Your task to perform on an android device: turn on sleep mode Image 0: 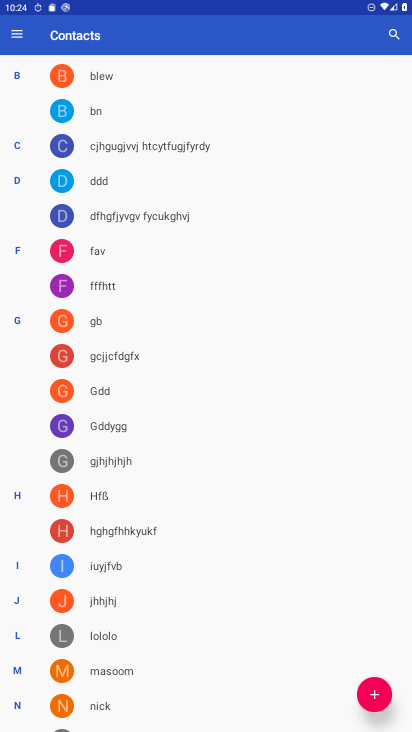
Step 0: press home button
Your task to perform on an android device: turn on sleep mode Image 1: 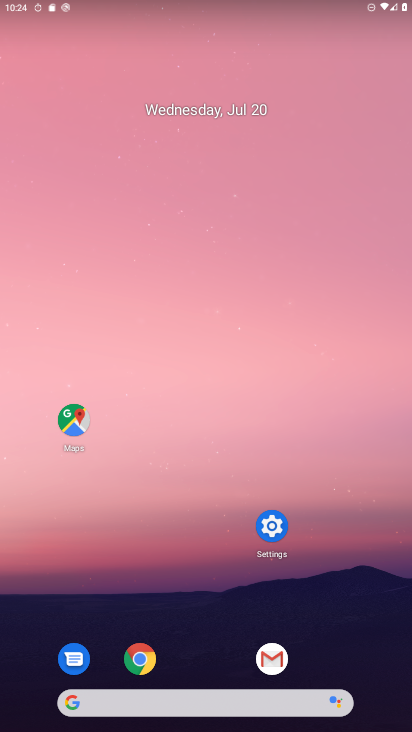
Step 1: click (273, 545)
Your task to perform on an android device: turn on sleep mode Image 2: 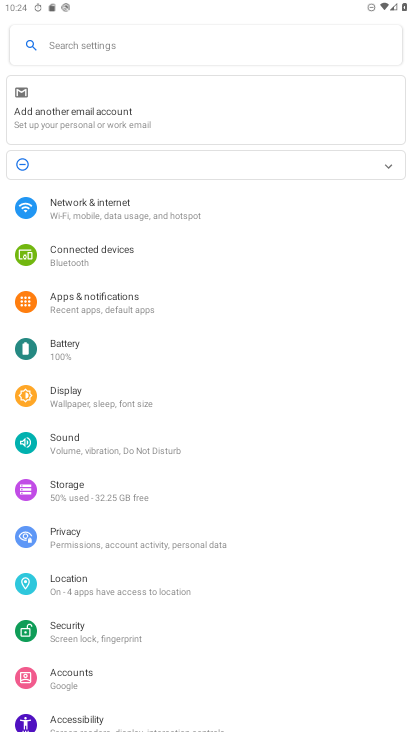
Step 2: click (97, 58)
Your task to perform on an android device: turn on sleep mode Image 3: 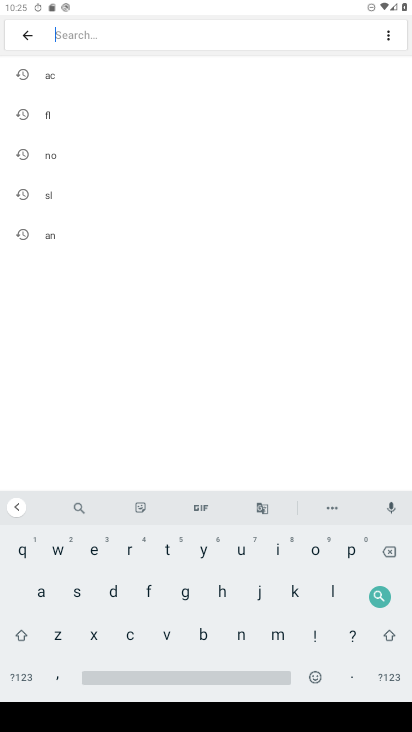
Step 3: click (73, 594)
Your task to perform on an android device: turn on sleep mode Image 4: 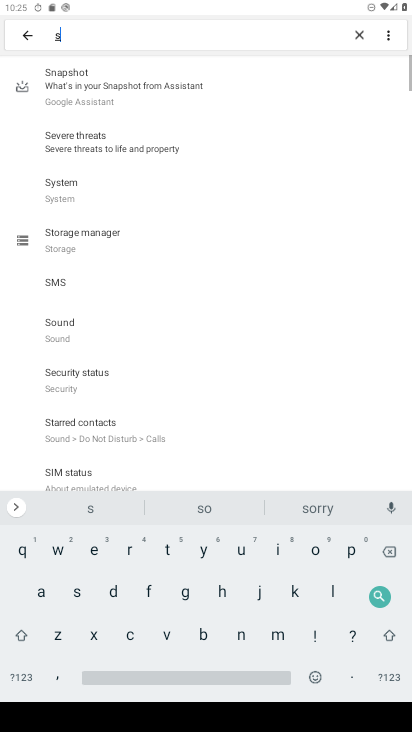
Step 4: click (335, 591)
Your task to perform on an android device: turn on sleep mode Image 5: 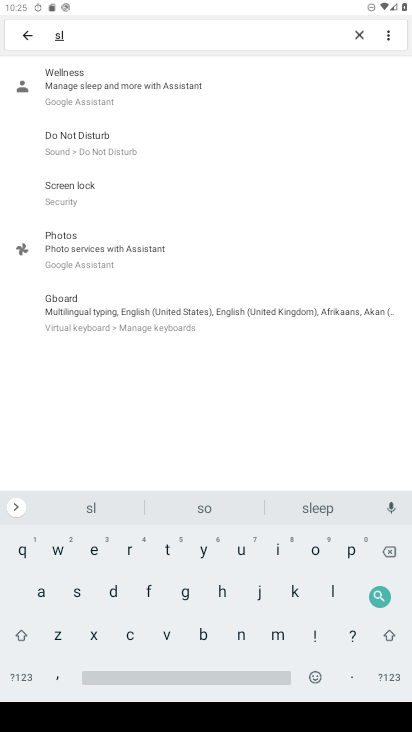
Step 5: click (97, 552)
Your task to perform on an android device: turn on sleep mode Image 6: 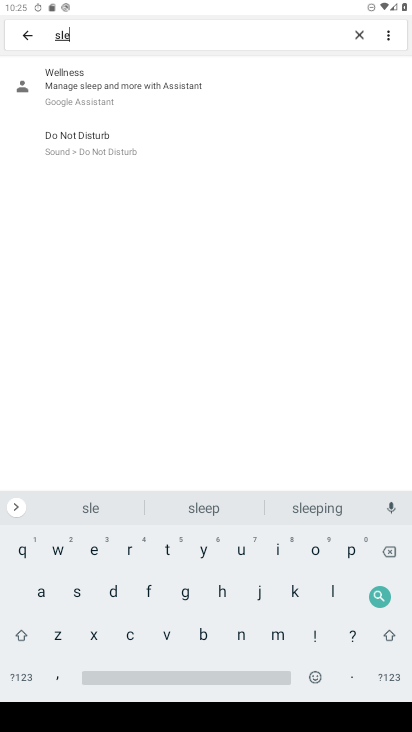
Step 6: click (98, 138)
Your task to perform on an android device: turn on sleep mode Image 7: 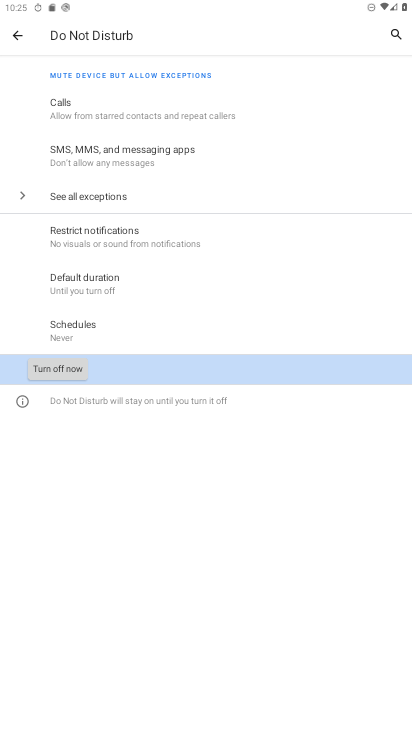
Step 7: click (75, 371)
Your task to perform on an android device: turn on sleep mode Image 8: 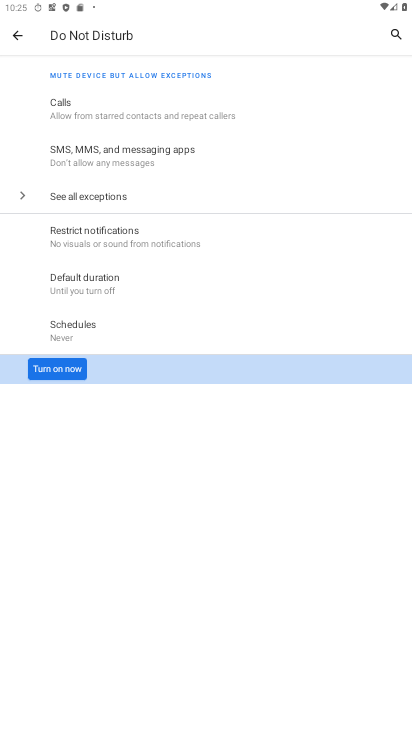
Step 8: click (34, 370)
Your task to perform on an android device: turn on sleep mode Image 9: 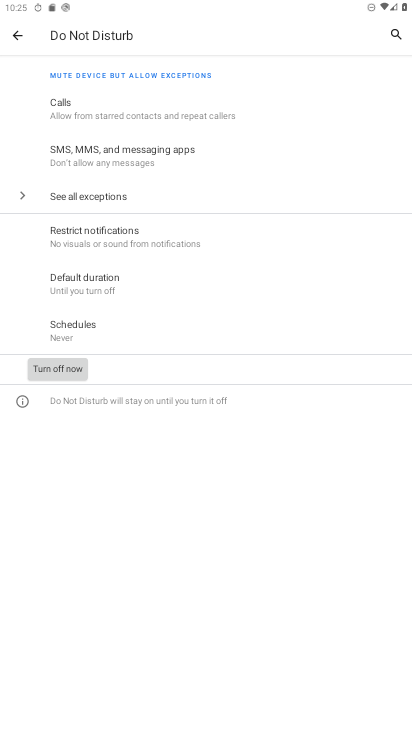
Step 9: task complete